Your task to perform on an android device: change your default location settings in chrome Image 0: 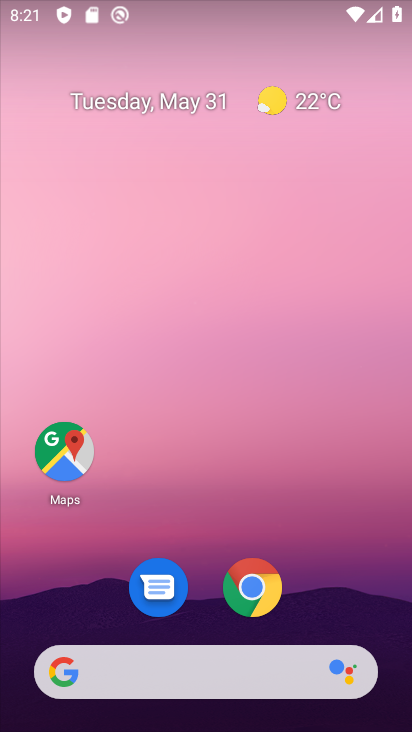
Step 0: click (251, 601)
Your task to perform on an android device: change your default location settings in chrome Image 1: 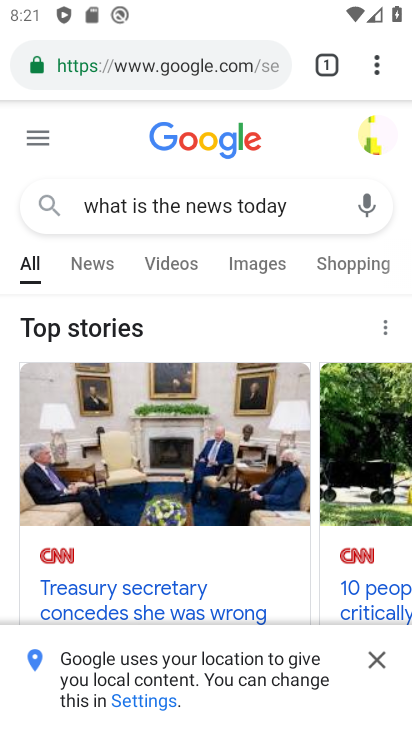
Step 1: click (387, 55)
Your task to perform on an android device: change your default location settings in chrome Image 2: 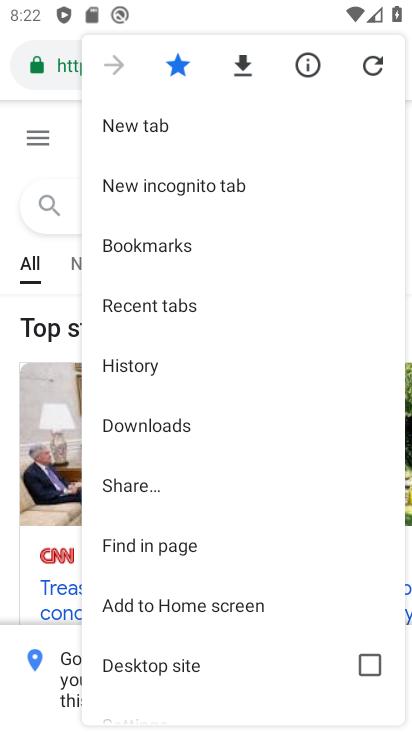
Step 2: drag from (143, 681) to (207, 198)
Your task to perform on an android device: change your default location settings in chrome Image 3: 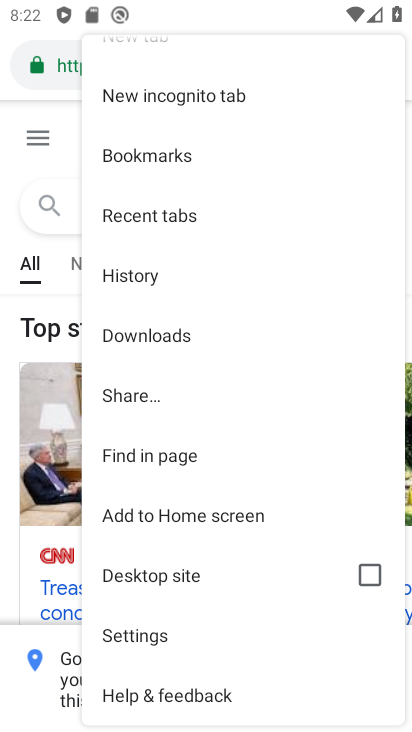
Step 3: click (165, 658)
Your task to perform on an android device: change your default location settings in chrome Image 4: 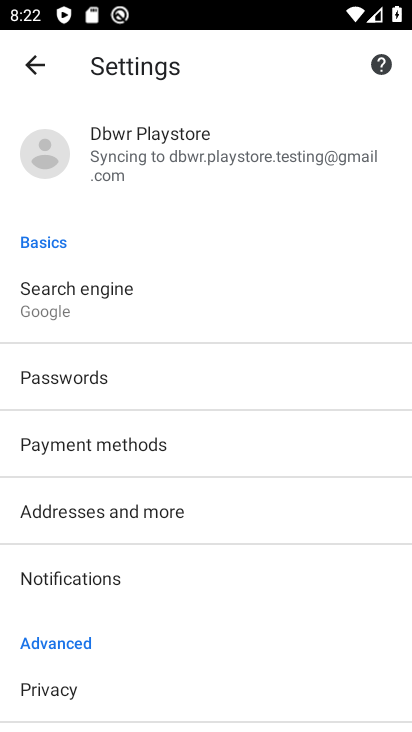
Step 4: drag from (157, 613) to (221, 204)
Your task to perform on an android device: change your default location settings in chrome Image 5: 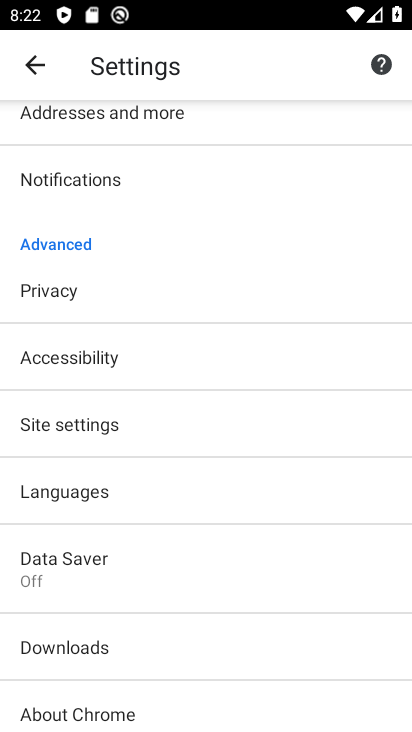
Step 5: click (76, 422)
Your task to perform on an android device: change your default location settings in chrome Image 6: 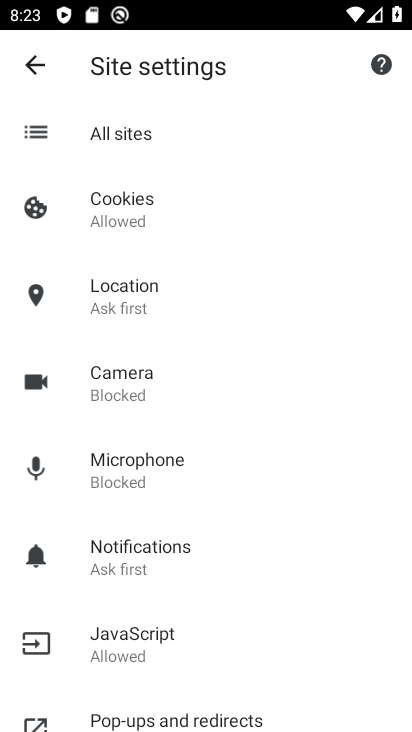
Step 6: click (109, 295)
Your task to perform on an android device: change your default location settings in chrome Image 7: 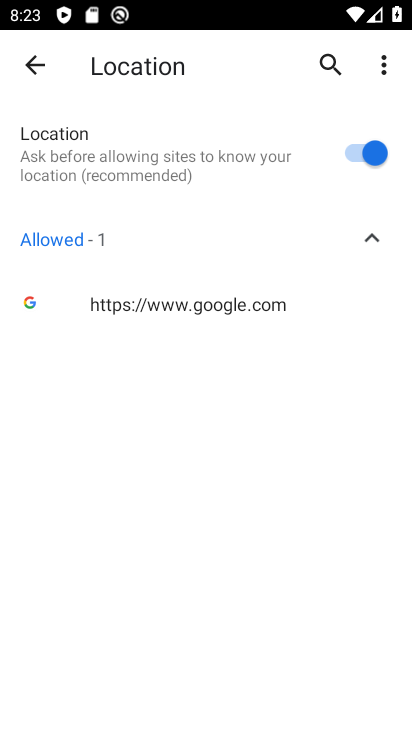
Step 7: click (367, 168)
Your task to perform on an android device: change your default location settings in chrome Image 8: 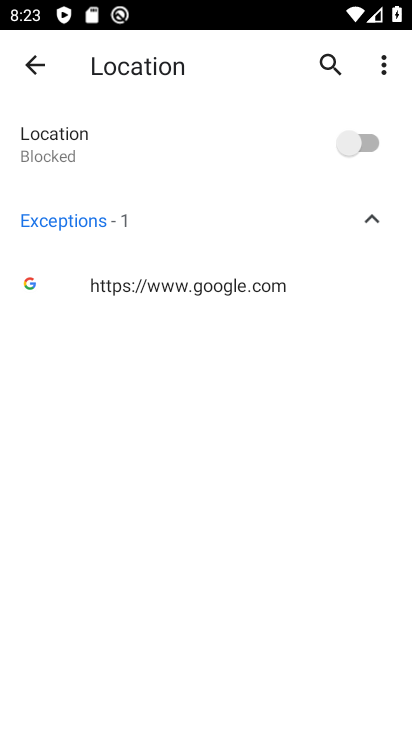
Step 8: task complete